Your task to perform on an android device: change notifications settings Image 0: 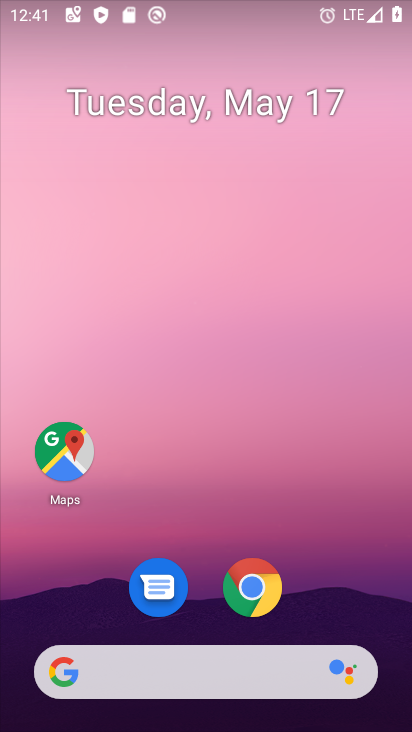
Step 0: drag from (391, 633) to (262, 38)
Your task to perform on an android device: change notifications settings Image 1: 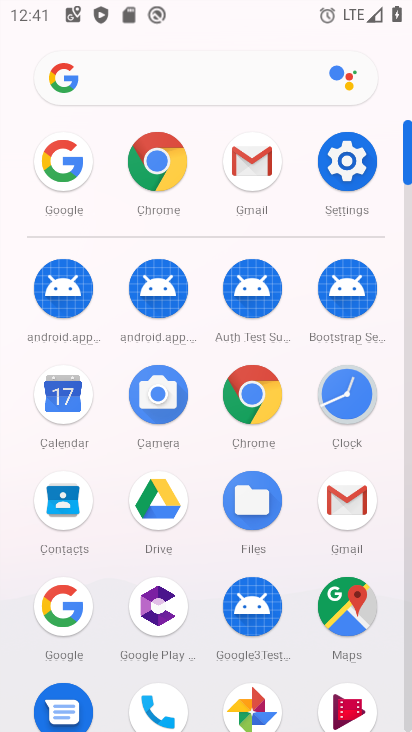
Step 1: click (346, 177)
Your task to perform on an android device: change notifications settings Image 2: 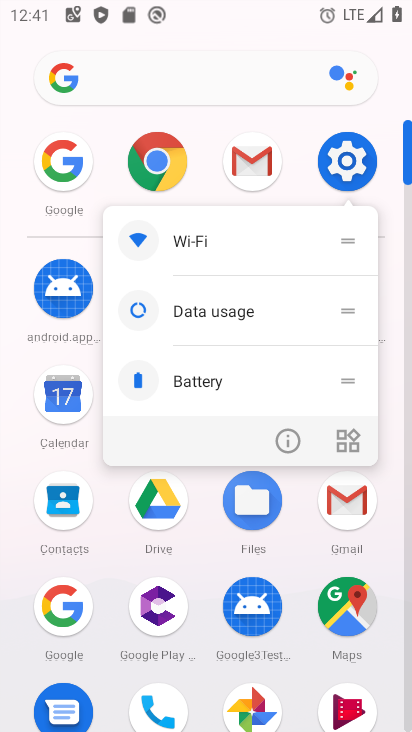
Step 2: click (367, 169)
Your task to perform on an android device: change notifications settings Image 3: 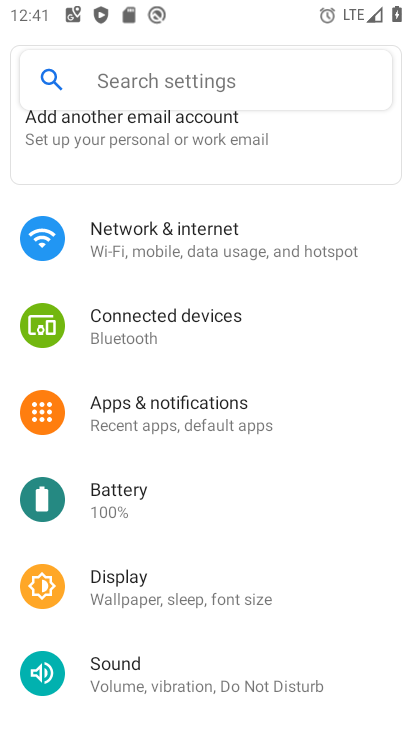
Step 3: click (222, 420)
Your task to perform on an android device: change notifications settings Image 4: 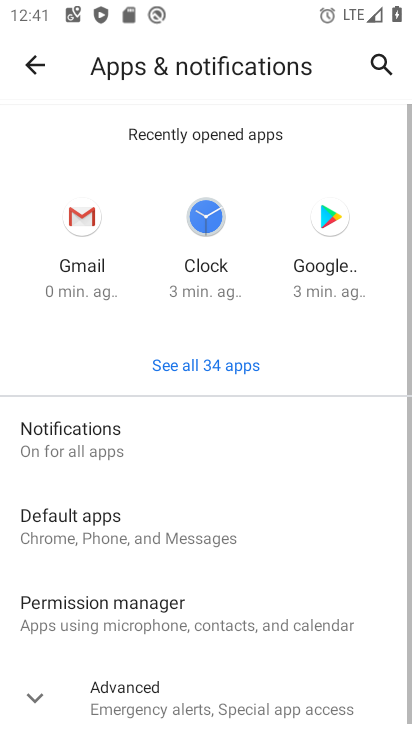
Step 4: click (215, 424)
Your task to perform on an android device: change notifications settings Image 5: 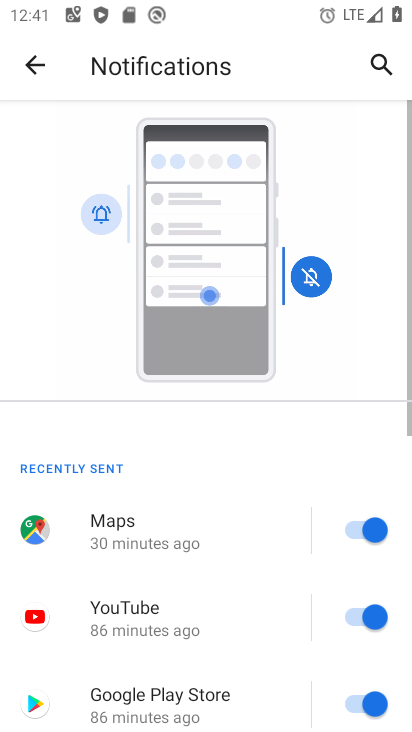
Step 5: task complete